Your task to perform on an android device: Go to battery settings Image 0: 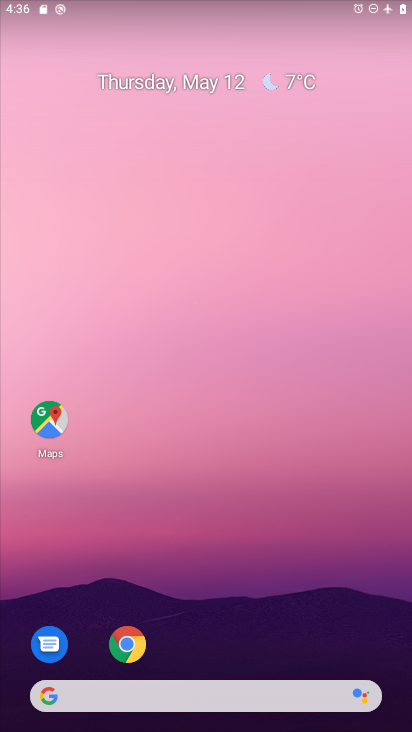
Step 0: drag from (216, 546) to (276, 50)
Your task to perform on an android device: Go to battery settings Image 1: 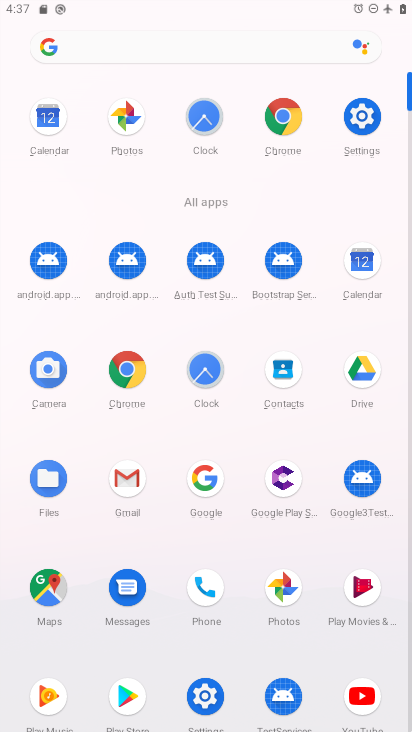
Step 1: click (353, 127)
Your task to perform on an android device: Go to battery settings Image 2: 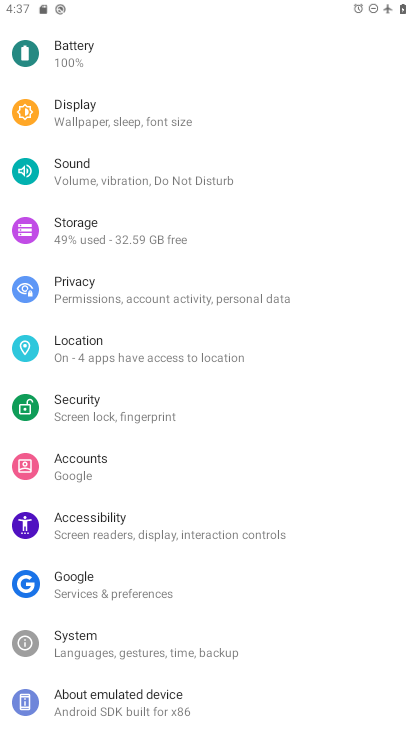
Step 2: click (108, 63)
Your task to perform on an android device: Go to battery settings Image 3: 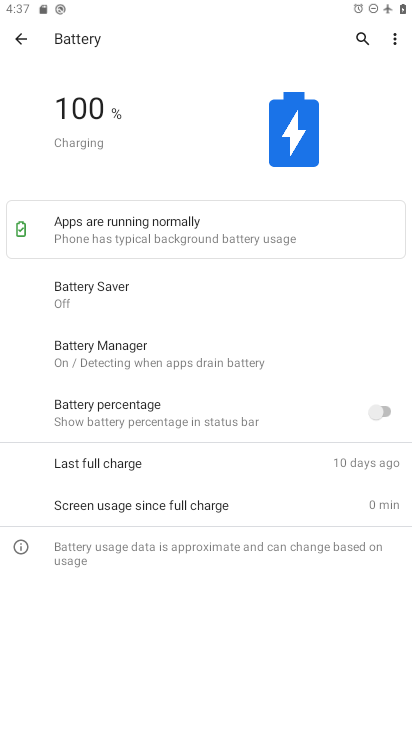
Step 3: task complete